Your task to perform on an android device: see creations saved in the google photos Image 0: 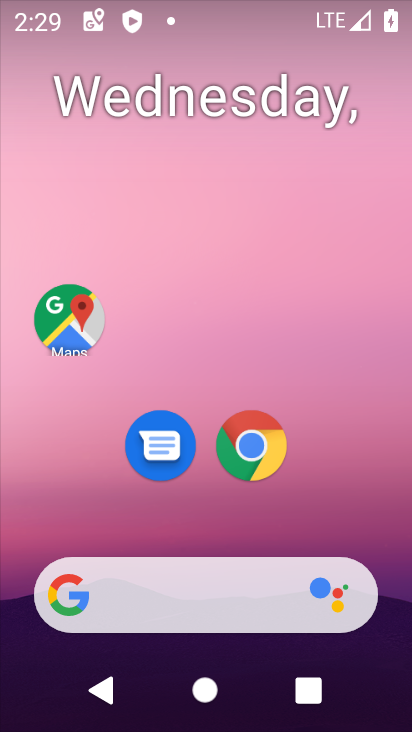
Step 0: drag from (200, 528) to (227, 178)
Your task to perform on an android device: see creations saved in the google photos Image 1: 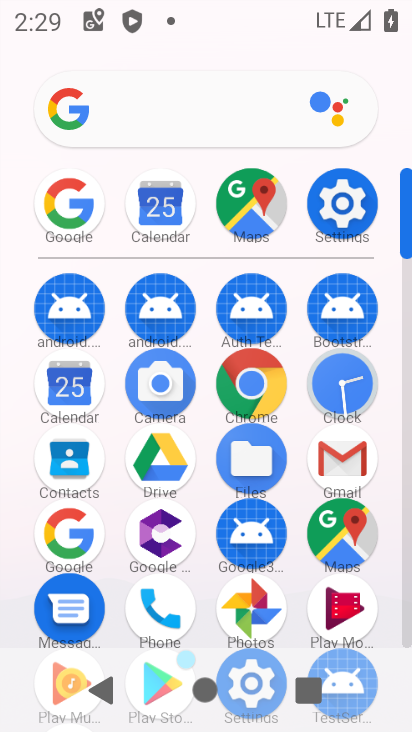
Step 1: click (248, 586)
Your task to perform on an android device: see creations saved in the google photos Image 2: 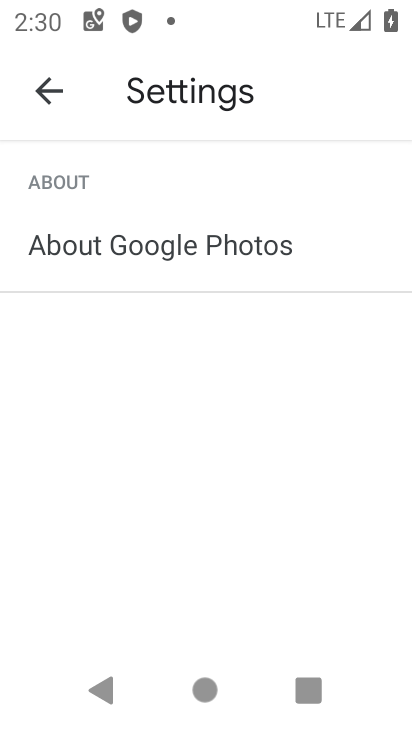
Step 2: click (52, 92)
Your task to perform on an android device: see creations saved in the google photos Image 3: 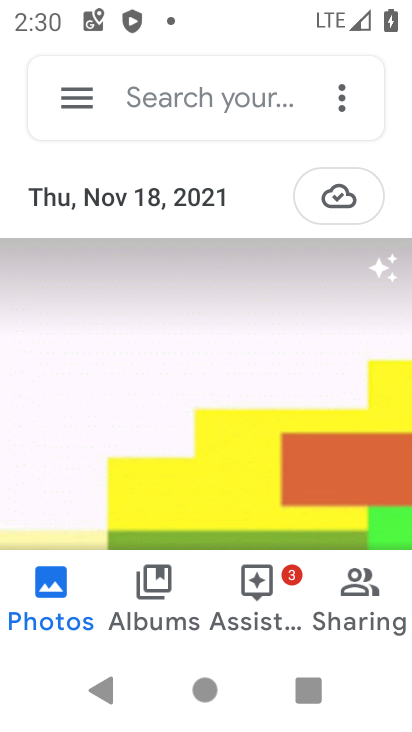
Step 3: click (192, 95)
Your task to perform on an android device: see creations saved in the google photos Image 4: 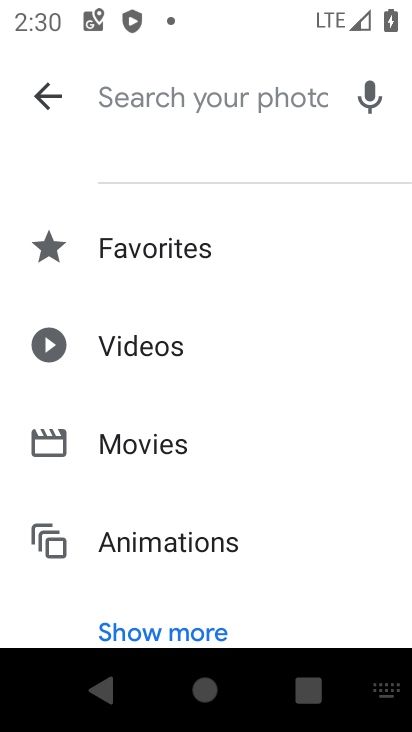
Step 4: drag from (208, 566) to (223, 232)
Your task to perform on an android device: see creations saved in the google photos Image 5: 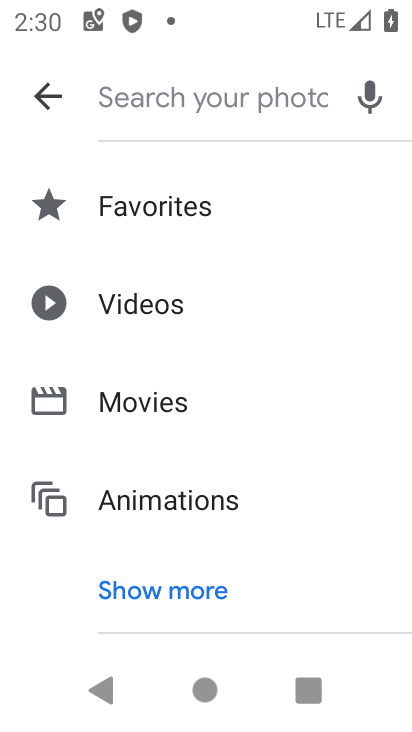
Step 5: click (208, 591)
Your task to perform on an android device: see creations saved in the google photos Image 6: 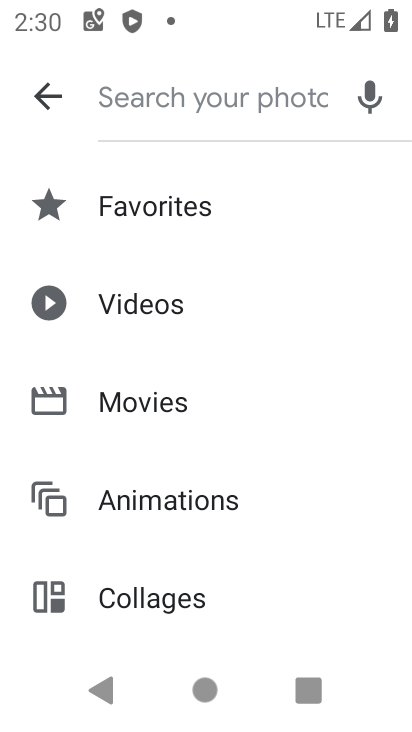
Step 6: drag from (191, 597) to (193, 293)
Your task to perform on an android device: see creations saved in the google photos Image 7: 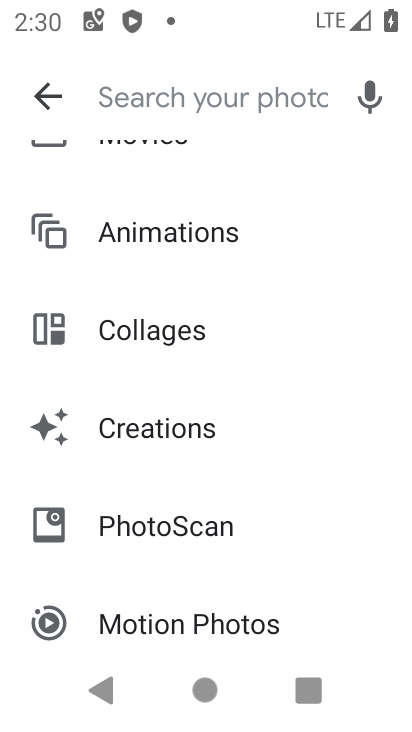
Step 7: drag from (176, 592) to (193, 404)
Your task to perform on an android device: see creations saved in the google photos Image 8: 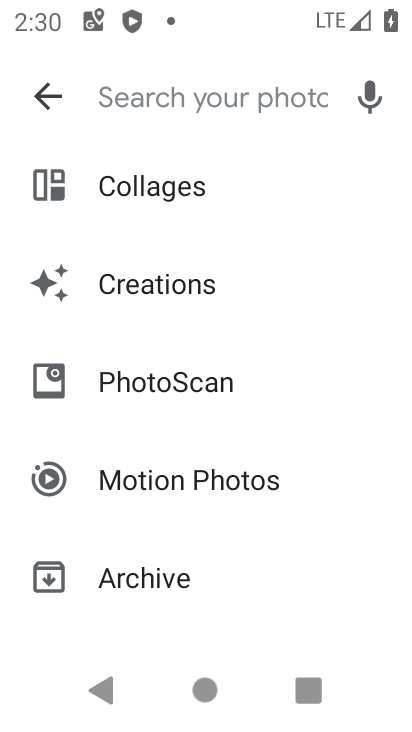
Step 8: click (182, 311)
Your task to perform on an android device: see creations saved in the google photos Image 9: 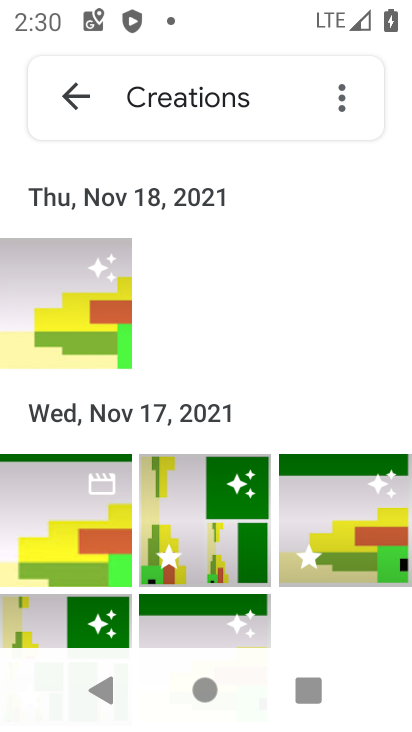
Step 9: task complete